Your task to perform on an android device: Show me recent news Image 0: 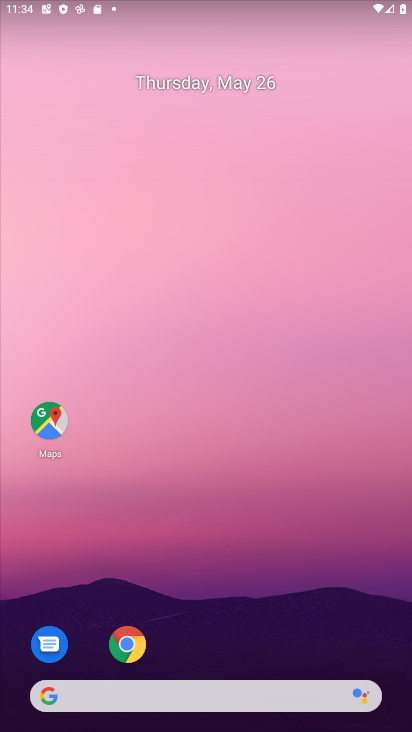
Step 0: drag from (336, 619) to (195, 113)
Your task to perform on an android device: Show me recent news Image 1: 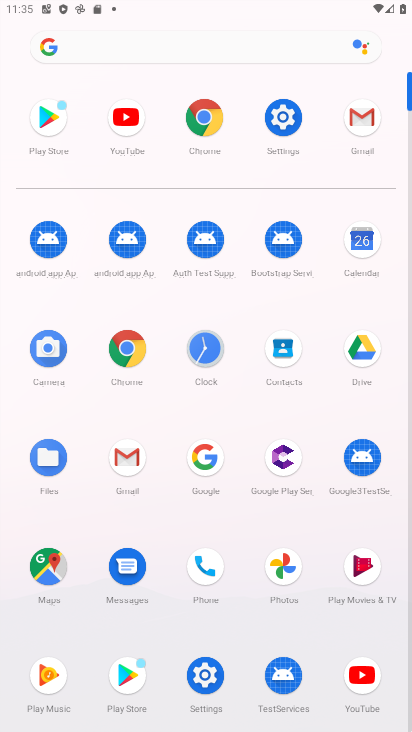
Step 1: click (190, 465)
Your task to perform on an android device: Show me recent news Image 2: 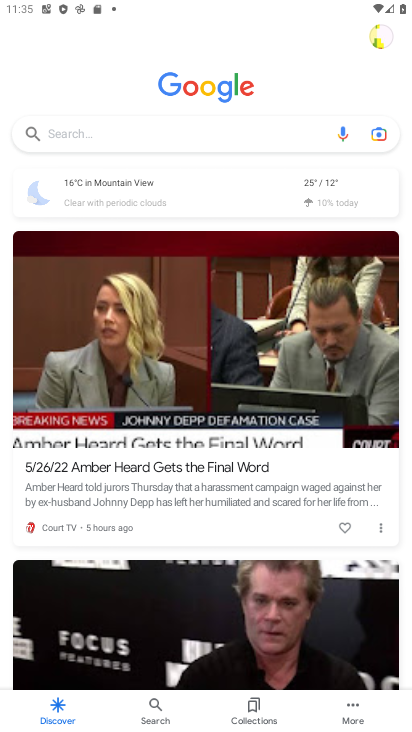
Step 2: click (135, 134)
Your task to perform on an android device: Show me recent news Image 3: 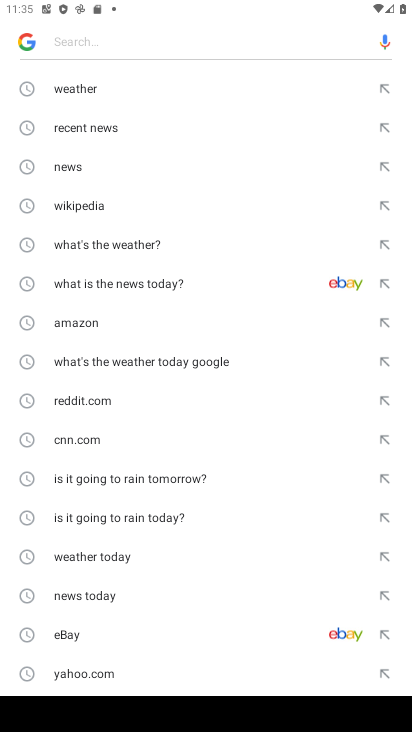
Step 3: click (115, 139)
Your task to perform on an android device: Show me recent news Image 4: 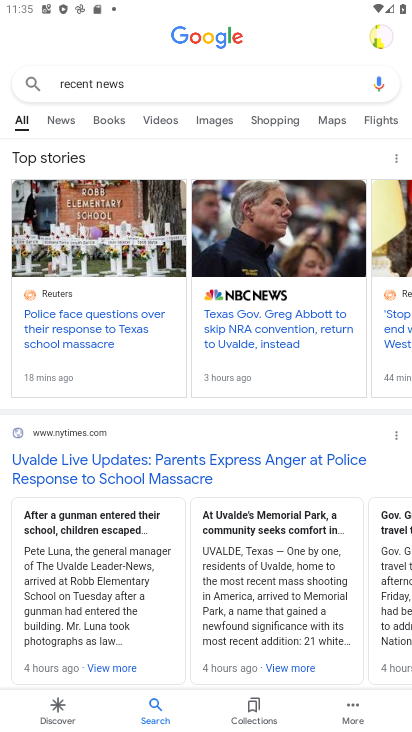
Step 4: task complete